Your task to perform on an android device: Do I have any events this weekend? Image 0: 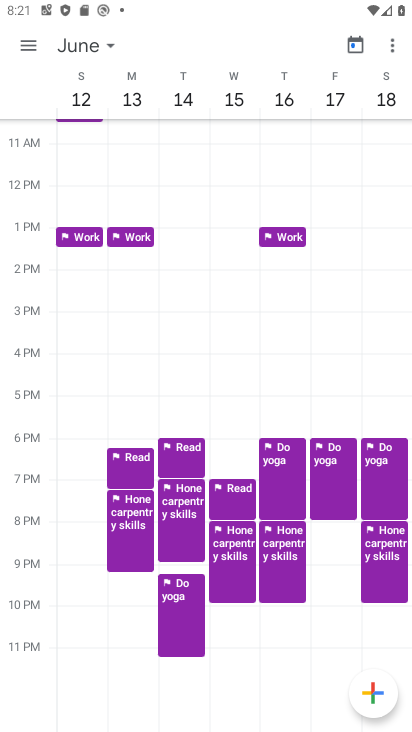
Step 0: drag from (109, 92) to (396, 112)
Your task to perform on an android device: Do I have any events this weekend? Image 1: 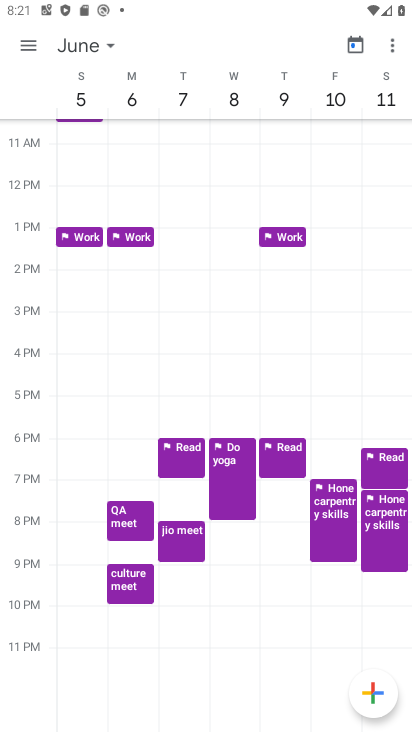
Step 1: drag from (88, 96) to (404, 156)
Your task to perform on an android device: Do I have any events this weekend? Image 2: 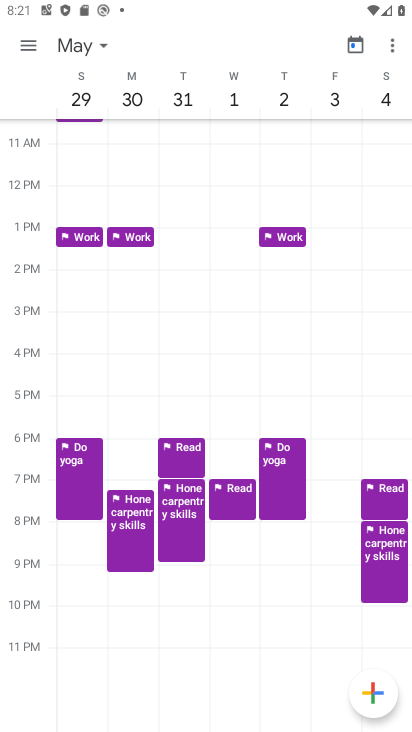
Step 2: drag from (83, 93) to (405, 173)
Your task to perform on an android device: Do I have any events this weekend? Image 3: 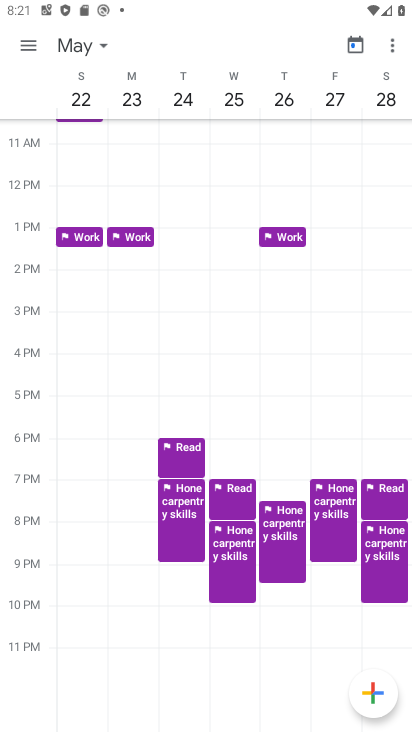
Step 3: drag from (84, 105) to (410, 135)
Your task to perform on an android device: Do I have any events this weekend? Image 4: 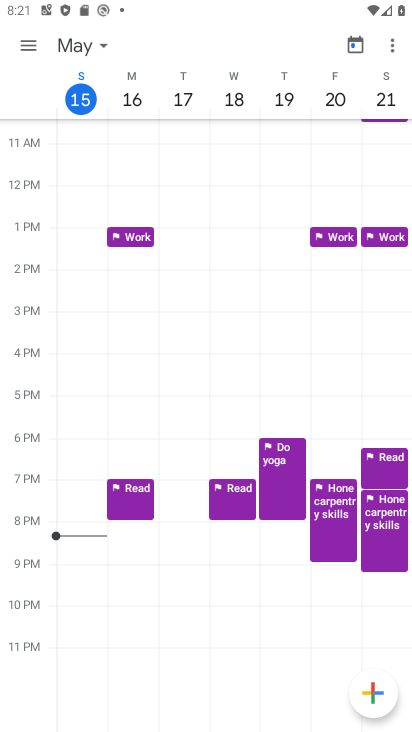
Step 4: click (28, 42)
Your task to perform on an android device: Do I have any events this weekend? Image 5: 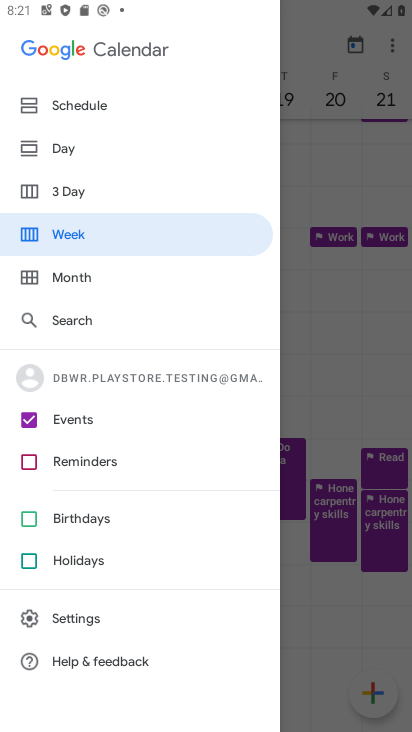
Step 5: click (355, 323)
Your task to perform on an android device: Do I have any events this weekend? Image 6: 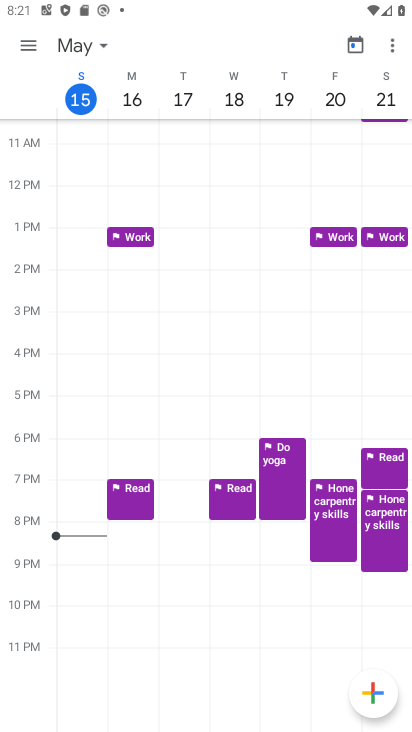
Step 6: task complete